Your task to perform on an android device: delete a single message in the gmail app Image 0: 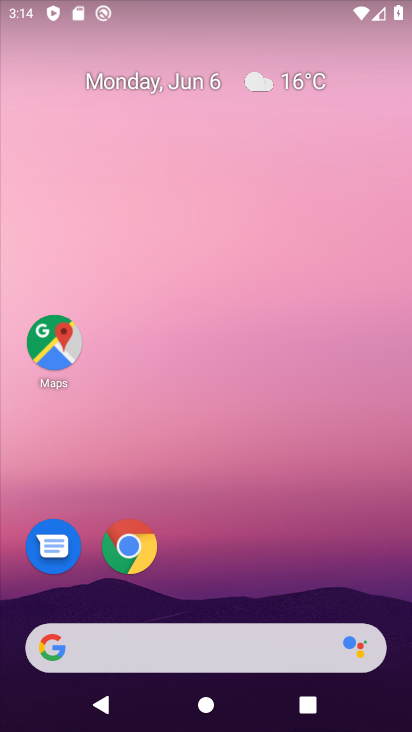
Step 0: drag from (307, 499) to (259, 28)
Your task to perform on an android device: delete a single message in the gmail app Image 1: 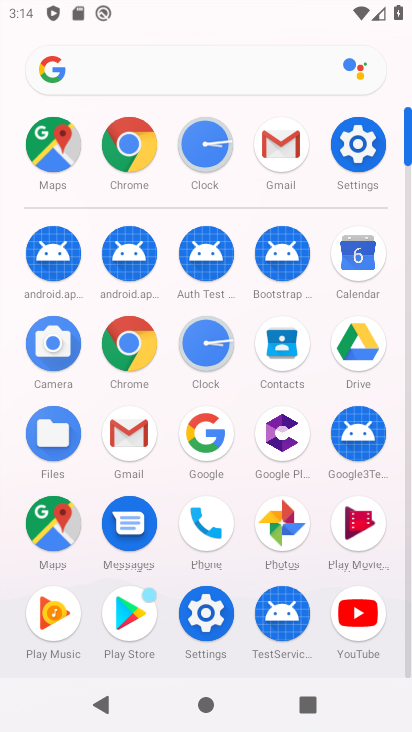
Step 1: click (279, 148)
Your task to perform on an android device: delete a single message in the gmail app Image 2: 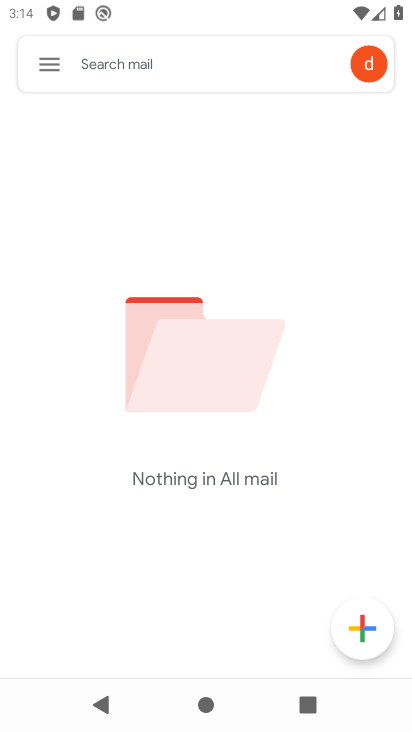
Step 2: click (38, 68)
Your task to perform on an android device: delete a single message in the gmail app Image 3: 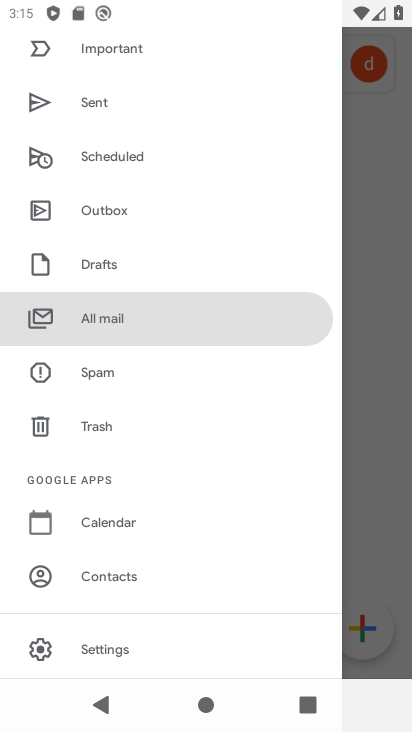
Step 3: click (167, 323)
Your task to perform on an android device: delete a single message in the gmail app Image 4: 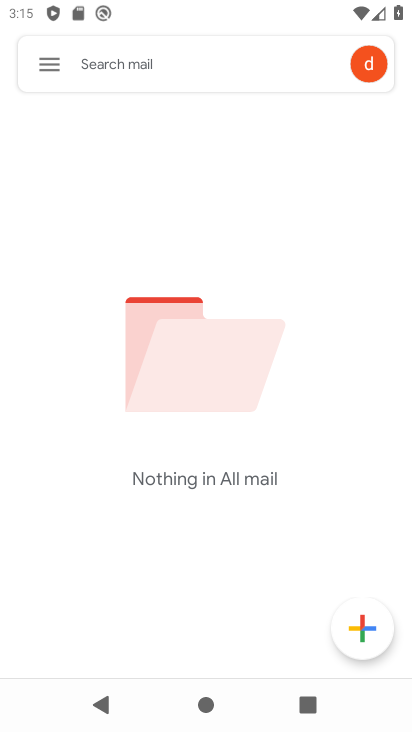
Step 4: task complete